Your task to perform on an android device: allow notifications from all sites in the chrome app Image 0: 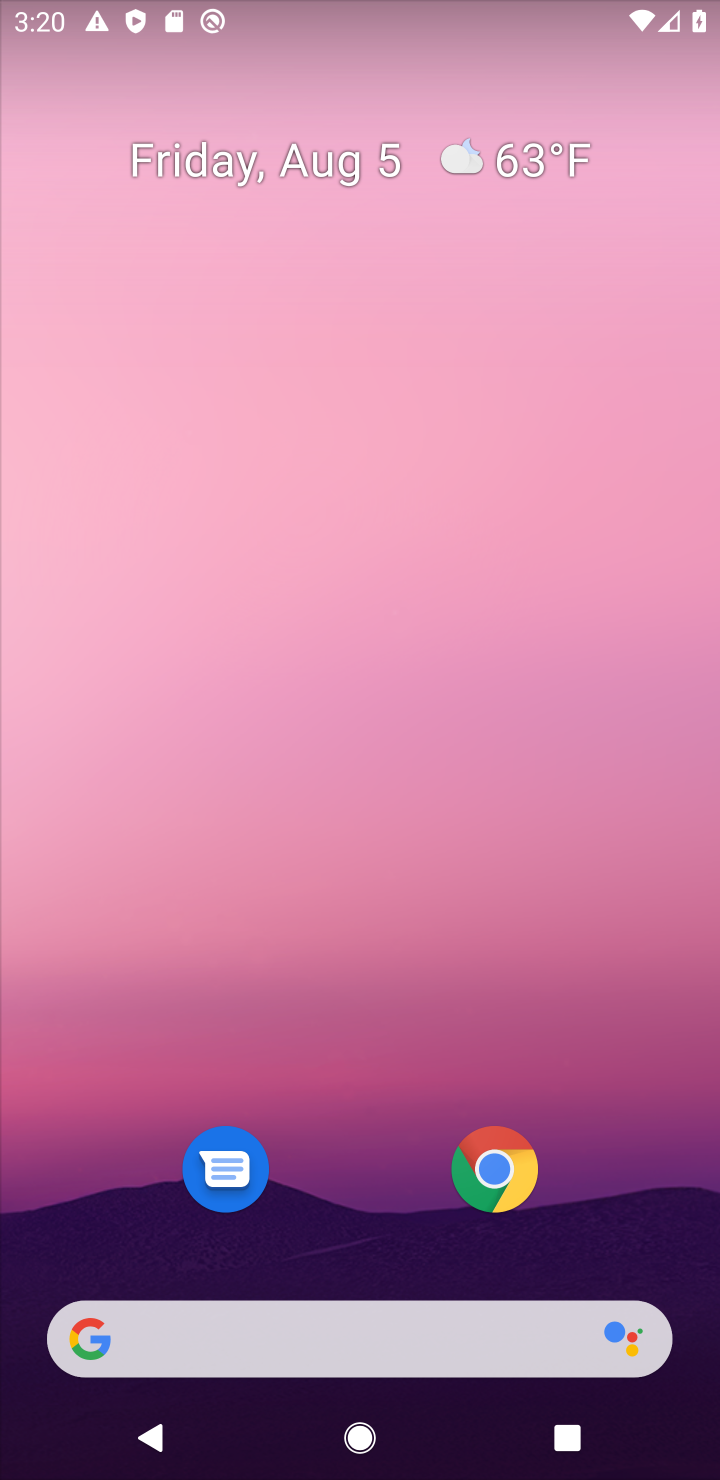
Step 0: click (489, 1181)
Your task to perform on an android device: allow notifications from all sites in the chrome app Image 1: 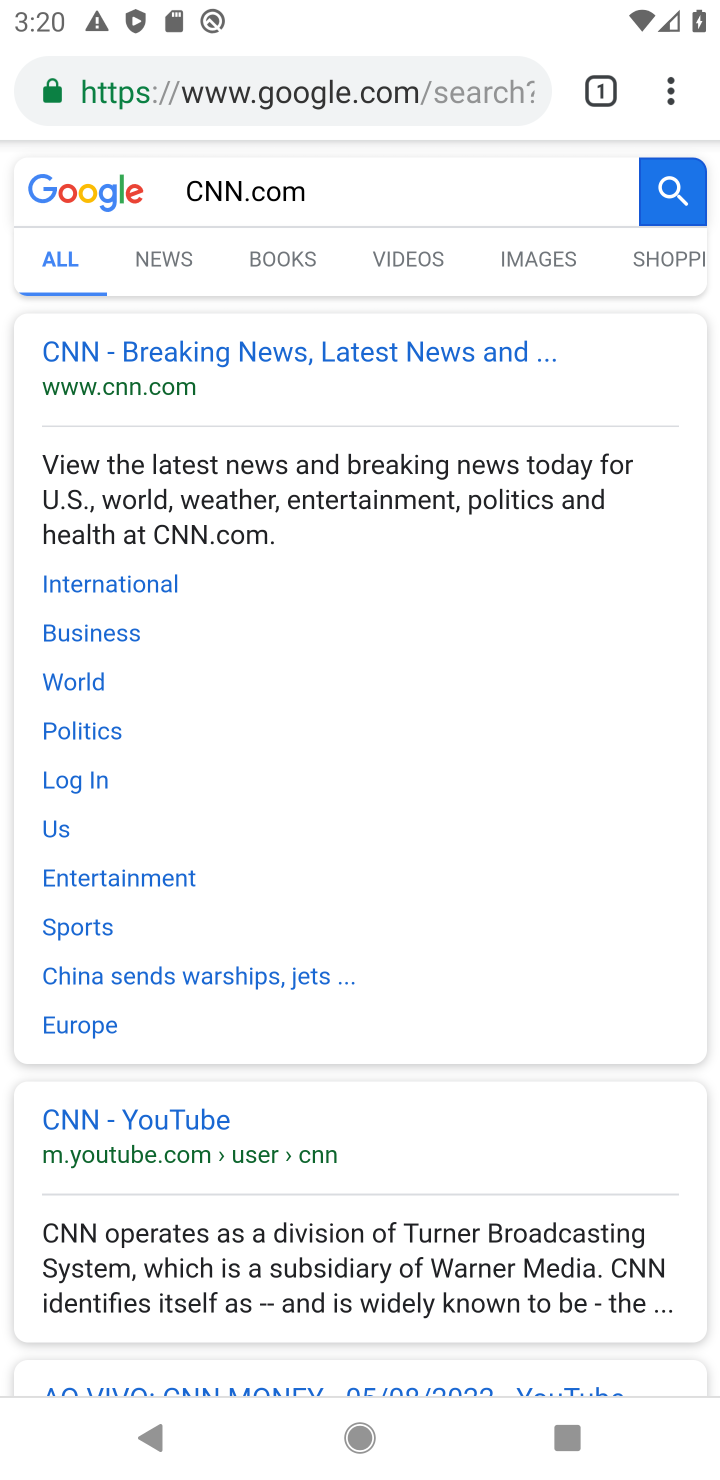
Step 1: click (672, 90)
Your task to perform on an android device: allow notifications from all sites in the chrome app Image 2: 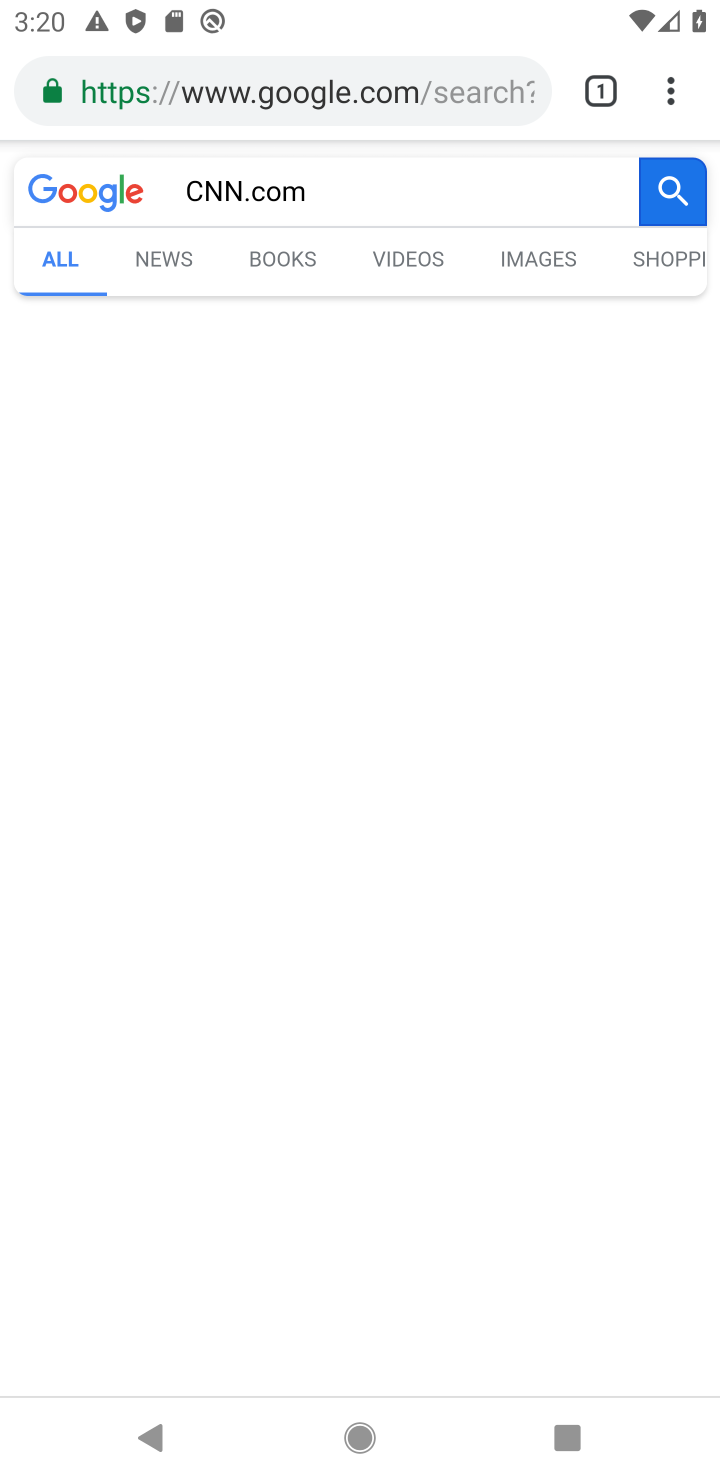
Step 2: click (672, 90)
Your task to perform on an android device: allow notifications from all sites in the chrome app Image 3: 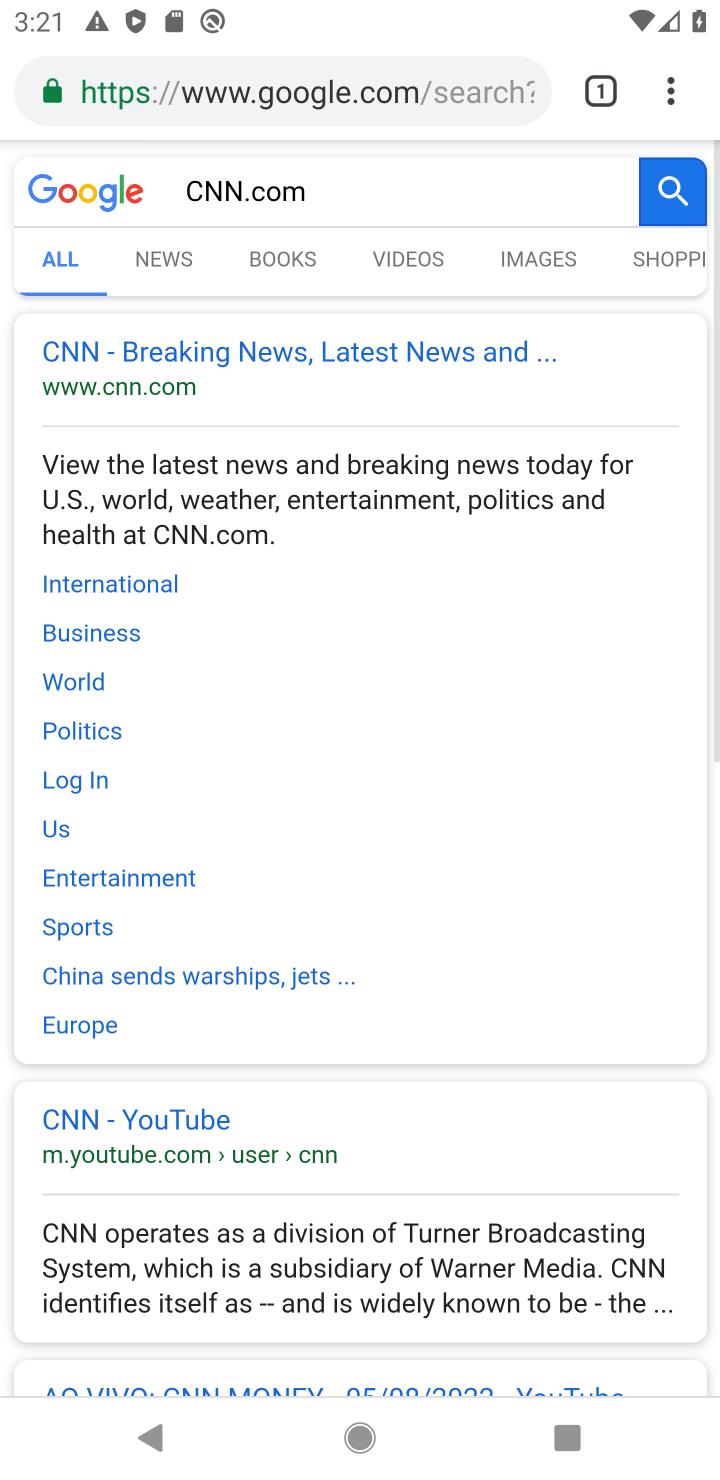
Step 3: click (669, 87)
Your task to perform on an android device: allow notifications from all sites in the chrome app Image 4: 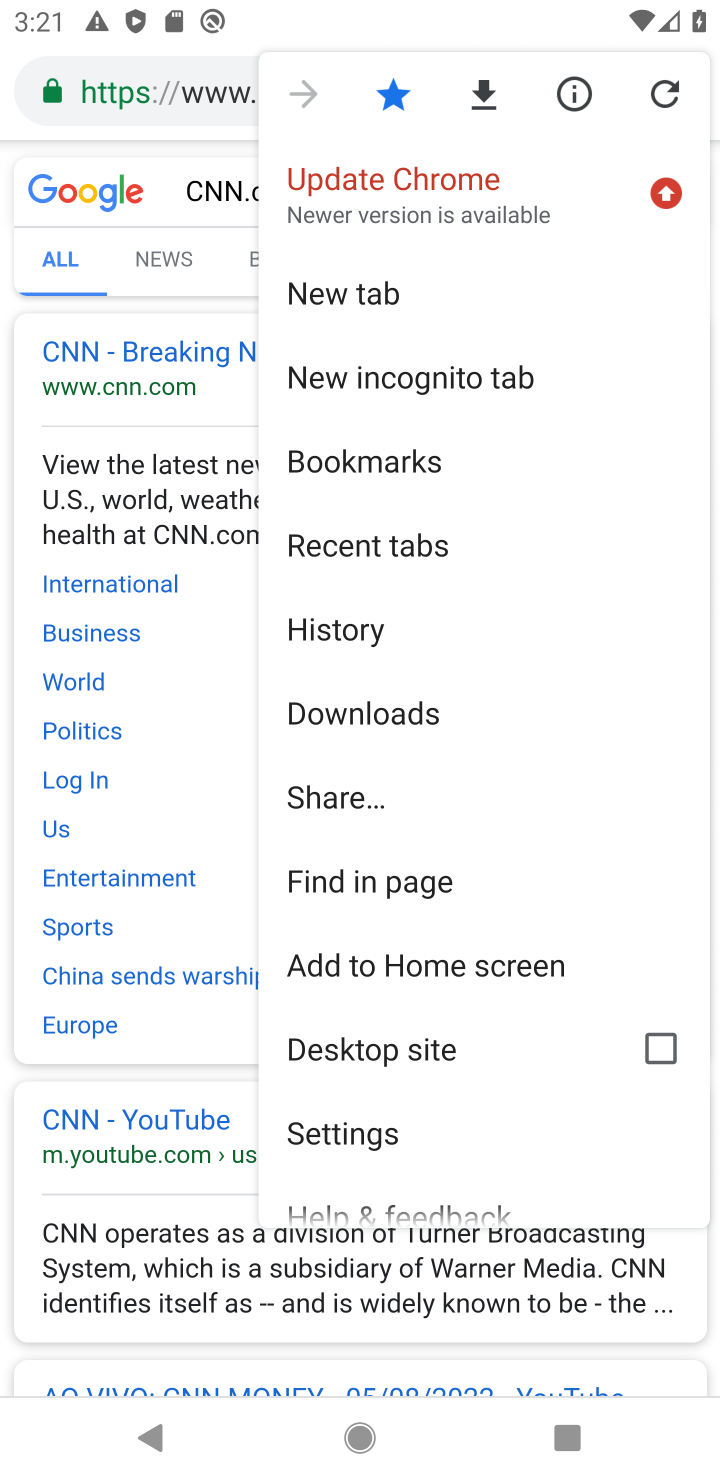
Step 4: click (339, 1130)
Your task to perform on an android device: allow notifications from all sites in the chrome app Image 5: 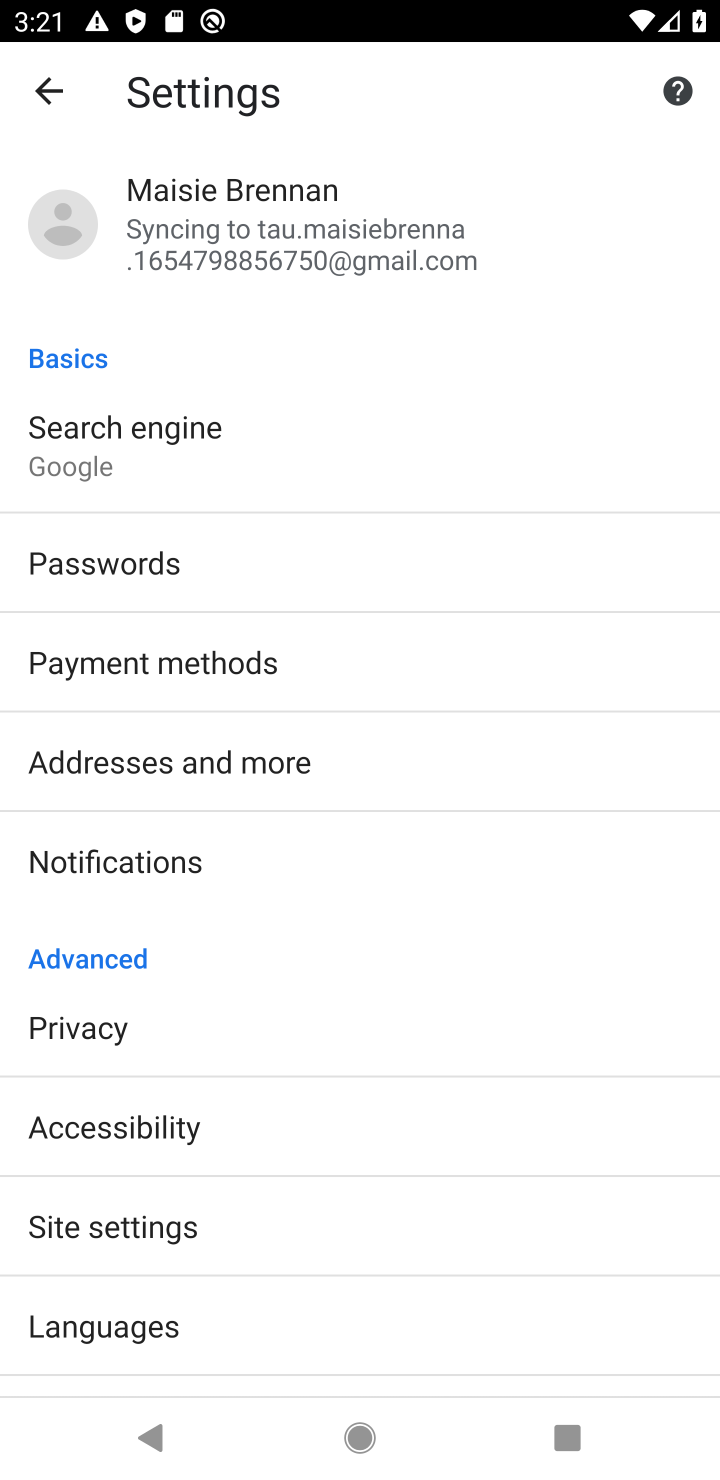
Step 5: click (118, 1230)
Your task to perform on an android device: allow notifications from all sites in the chrome app Image 6: 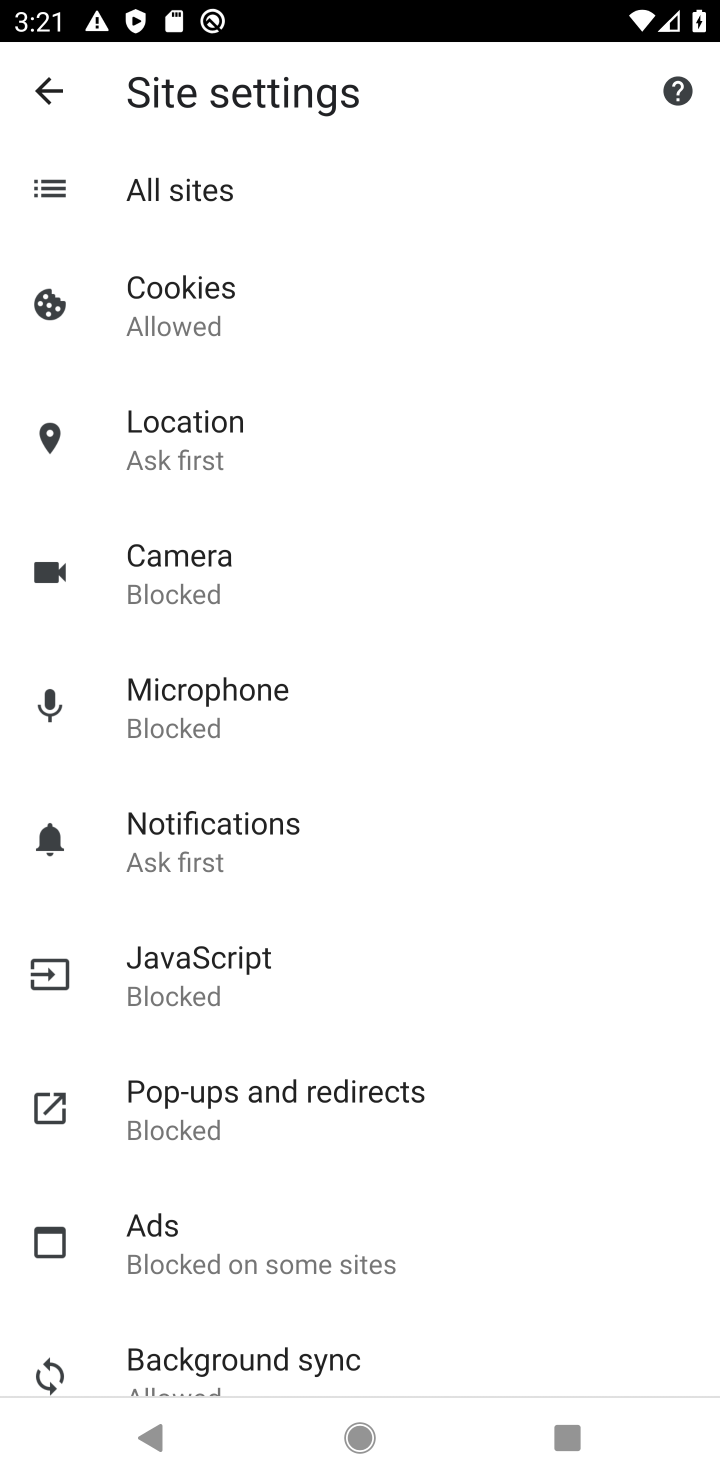
Step 6: click (171, 846)
Your task to perform on an android device: allow notifications from all sites in the chrome app Image 7: 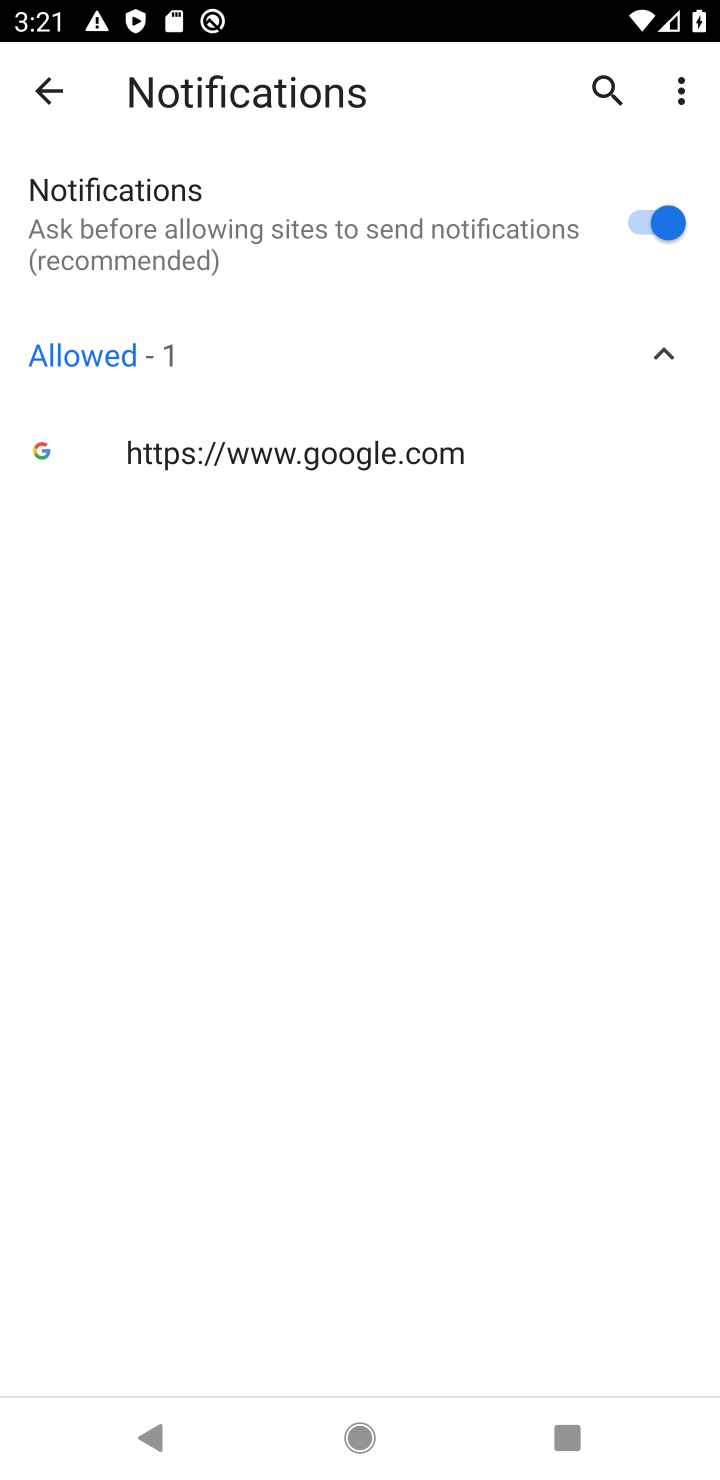
Step 7: task complete